Your task to perform on an android device: Go to Google Image 0: 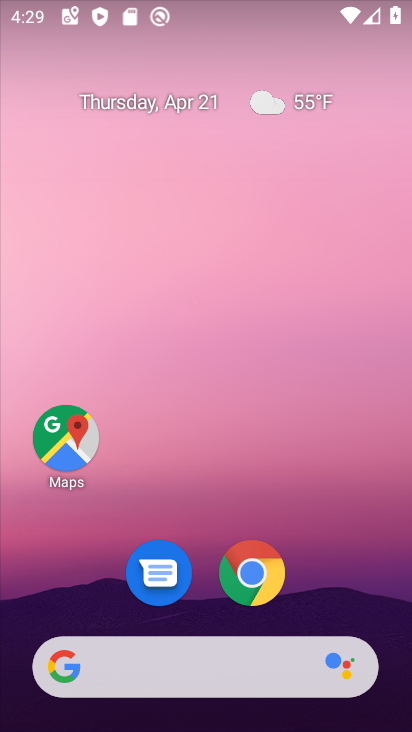
Step 0: drag from (354, 567) to (325, 74)
Your task to perform on an android device: Go to Google Image 1: 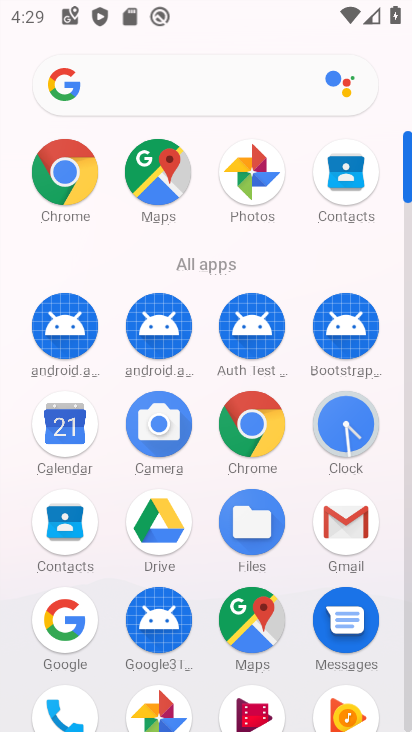
Step 1: click (74, 624)
Your task to perform on an android device: Go to Google Image 2: 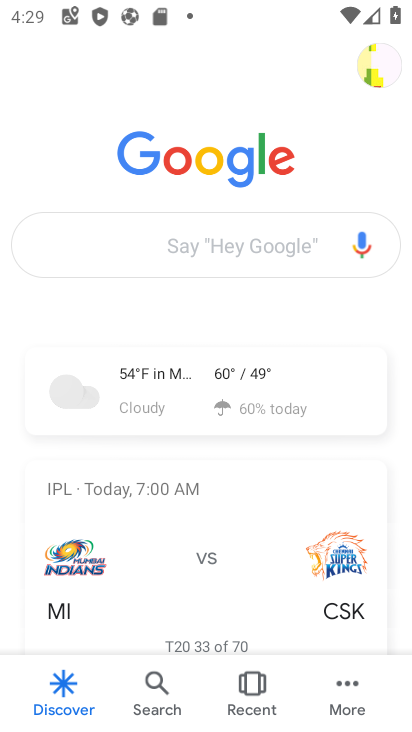
Step 2: task complete